Your task to perform on an android device: turn vacation reply on in the gmail app Image 0: 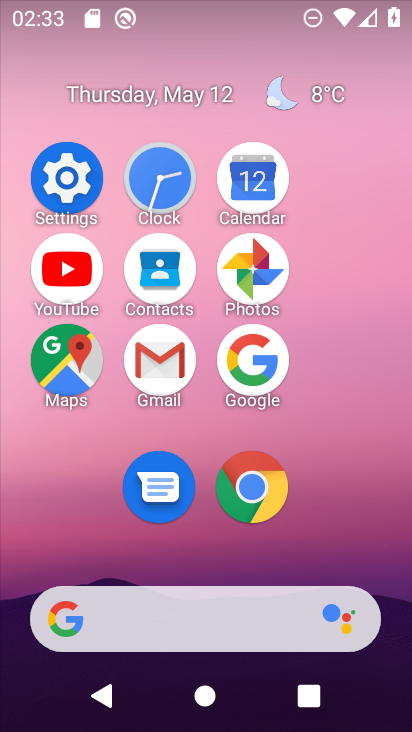
Step 0: click (156, 343)
Your task to perform on an android device: turn vacation reply on in the gmail app Image 1: 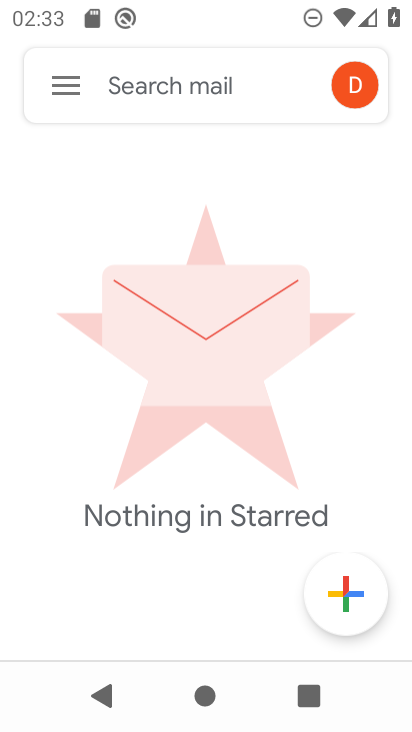
Step 1: click (34, 71)
Your task to perform on an android device: turn vacation reply on in the gmail app Image 2: 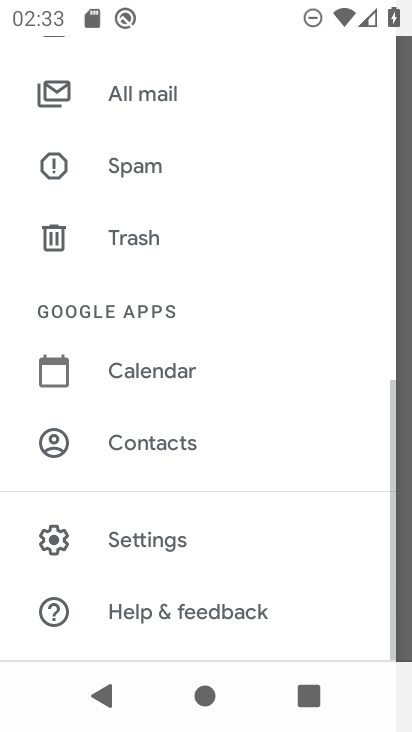
Step 2: click (194, 536)
Your task to perform on an android device: turn vacation reply on in the gmail app Image 3: 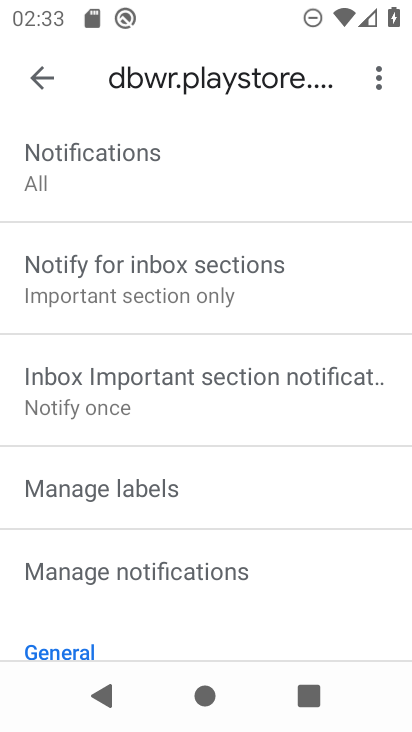
Step 3: drag from (285, 636) to (267, 91)
Your task to perform on an android device: turn vacation reply on in the gmail app Image 4: 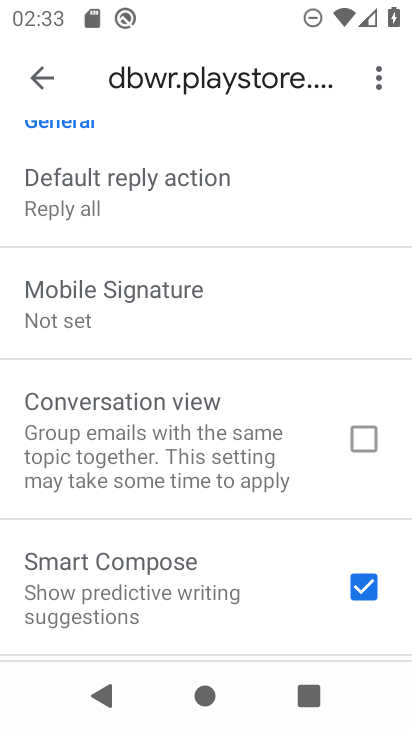
Step 4: drag from (260, 553) to (235, 75)
Your task to perform on an android device: turn vacation reply on in the gmail app Image 5: 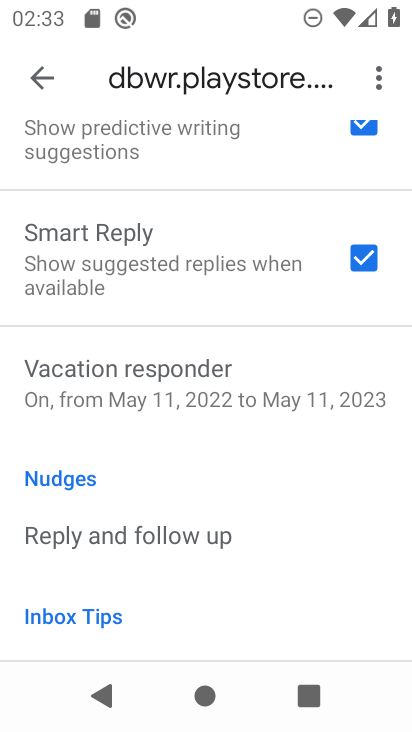
Step 5: drag from (295, 543) to (295, 165)
Your task to perform on an android device: turn vacation reply on in the gmail app Image 6: 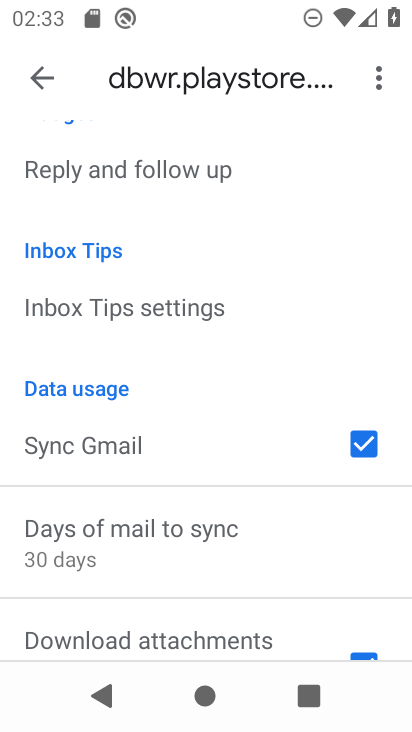
Step 6: drag from (293, 176) to (287, 533)
Your task to perform on an android device: turn vacation reply on in the gmail app Image 7: 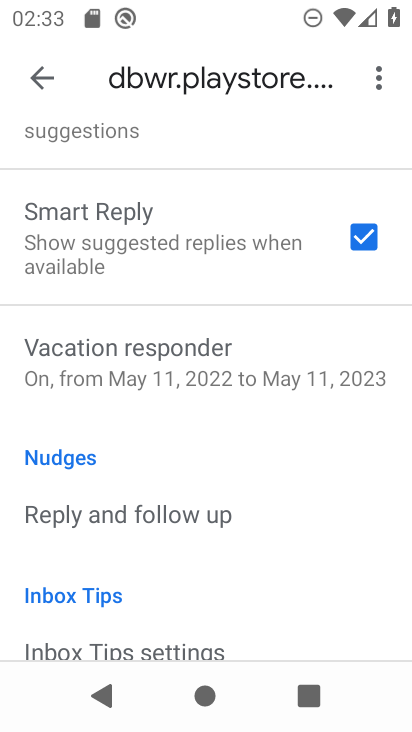
Step 7: click (255, 351)
Your task to perform on an android device: turn vacation reply on in the gmail app Image 8: 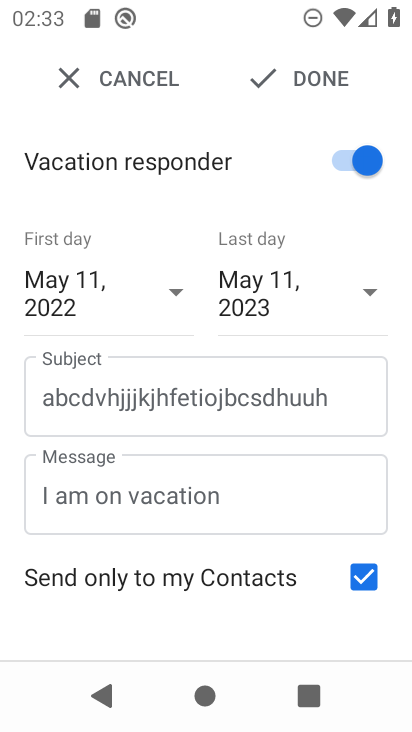
Step 8: click (335, 90)
Your task to perform on an android device: turn vacation reply on in the gmail app Image 9: 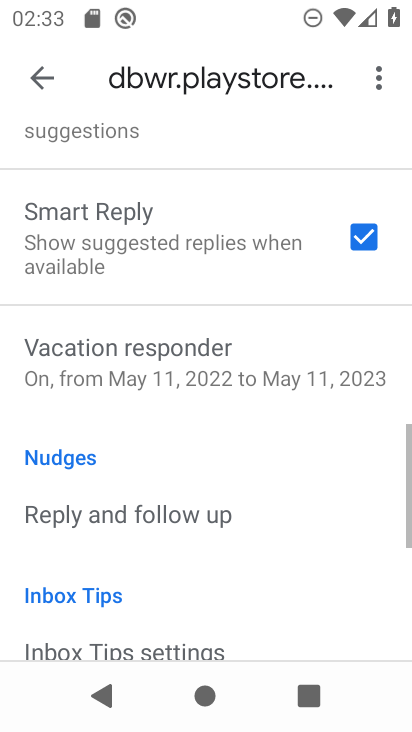
Step 9: task complete